Your task to perform on an android device: Is it going to rain this weekend? Image 0: 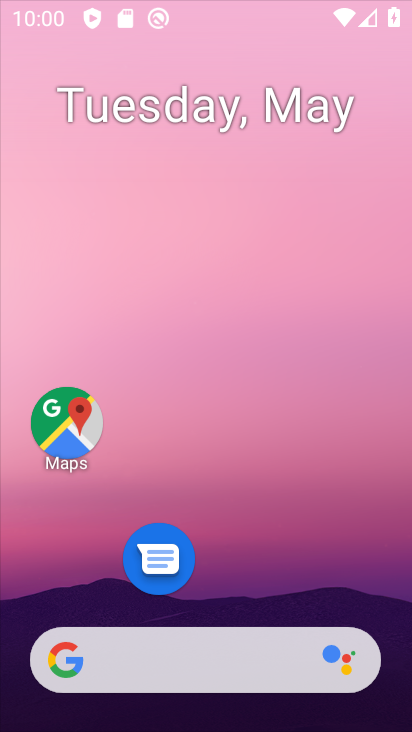
Step 0: click (237, 91)
Your task to perform on an android device: Is it going to rain this weekend? Image 1: 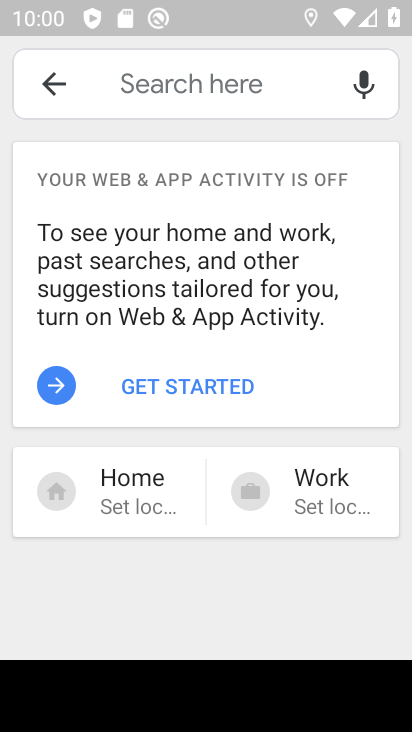
Step 1: press back button
Your task to perform on an android device: Is it going to rain this weekend? Image 2: 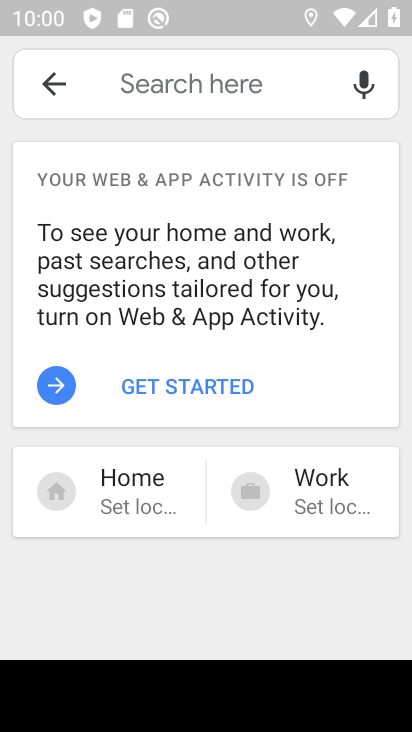
Step 2: press back button
Your task to perform on an android device: Is it going to rain this weekend? Image 3: 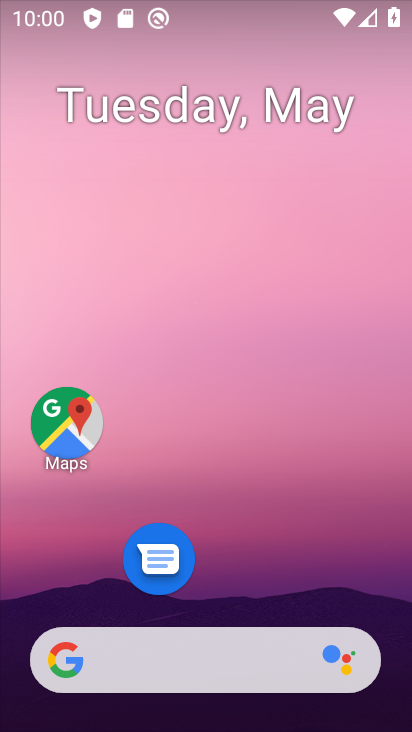
Step 3: drag from (2, 221) to (406, 436)
Your task to perform on an android device: Is it going to rain this weekend? Image 4: 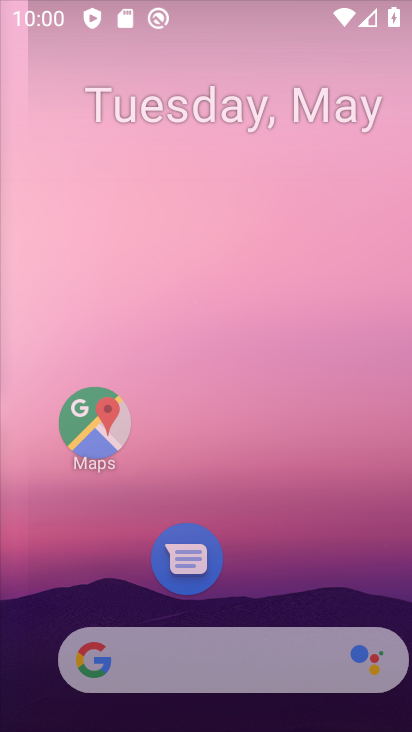
Step 4: drag from (34, 299) to (377, 378)
Your task to perform on an android device: Is it going to rain this weekend? Image 5: 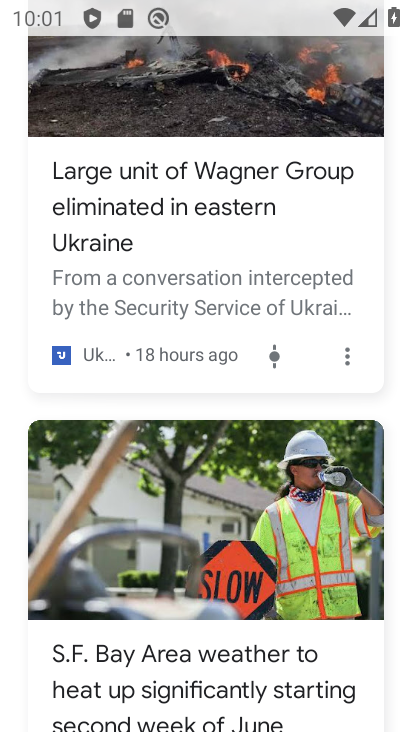
Step 5: drag from (164, 158) to (210, 454)
Your task to perform on an android device: Is it going to rain this weekend? Image 6: 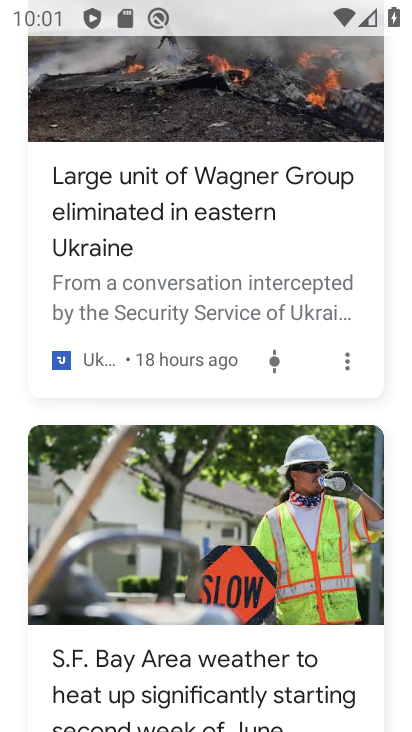
Step 6: drag from (174, 217) to (220, 506)
Your task to perform on an android device: Is it going to rain this weekend? Image 7: 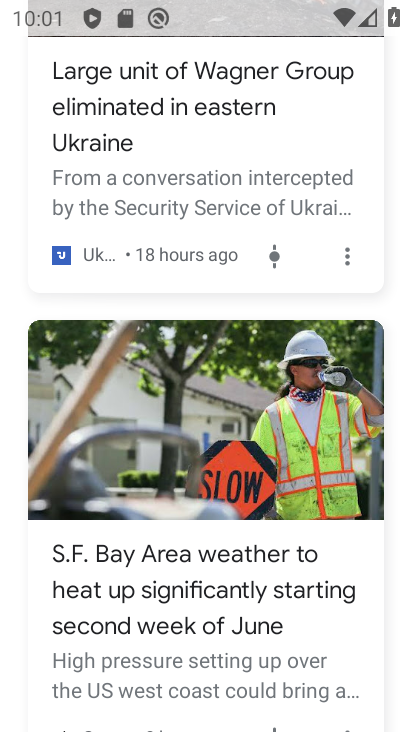
Step 7: drag from (188, 197) to (235, 559)
Your task to perform on an android device: Is it going to rain this weekend? Image 8: 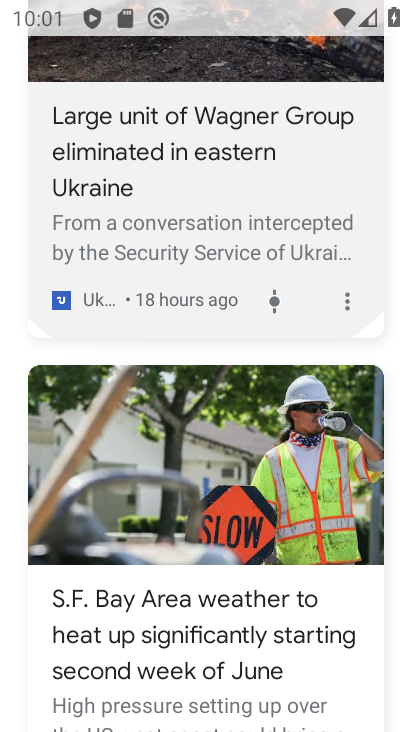
Step 8: drag from (174, 371) to (164, 562)
Your task to perform on an android device: Is it going to rain this weekend? Image 9: 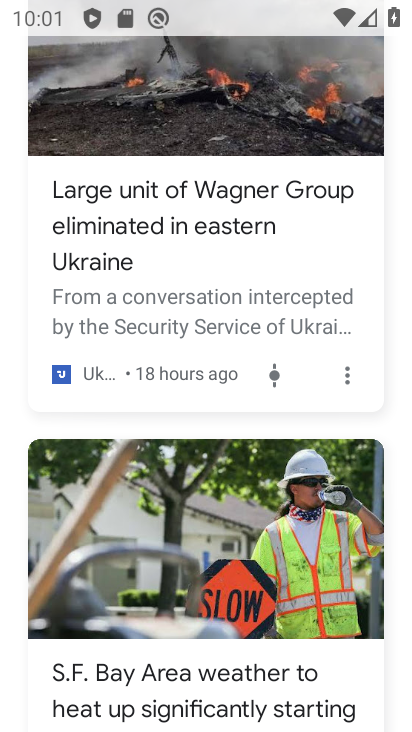
Step 9: drag from (198, 417) to (155, 552)
Your task to perform on an android device: Is it going to rain this weekend? Image 10: 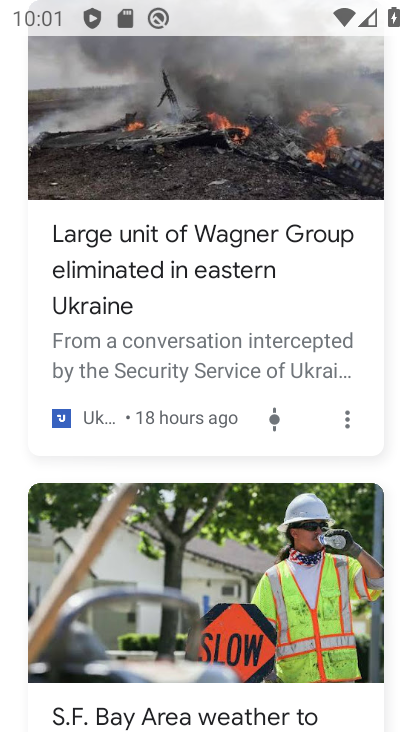
Step 10: drag from (130, 641) to (141, 717)
Your task to perform on an android device: Is it going to rain this weekend? Image 11: 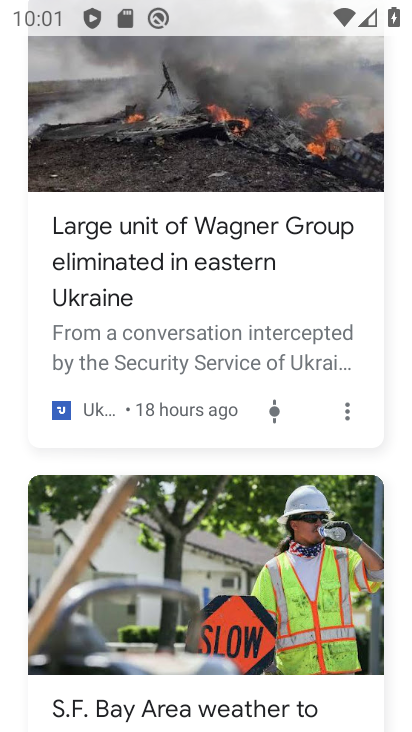
Step 11: drag from (104, 208) to (241, 618)
Your task to perform on an android device: Is it going to rain this weekend? Image 12: 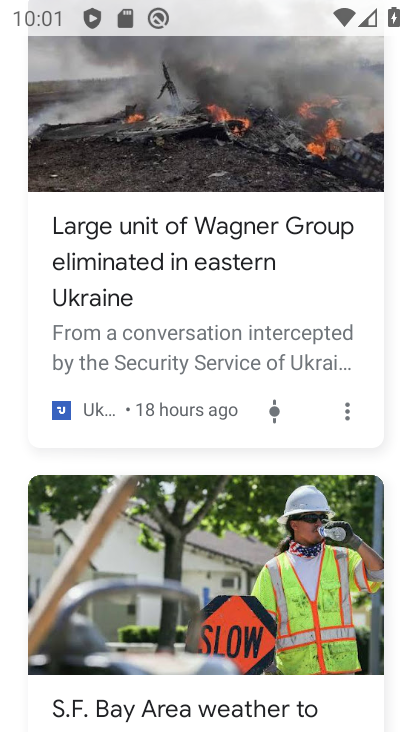
Step 12: drag from (198, 140) to (279, 613)
Your task to perform on an android device: Is it going to rain this weekend? Image 13: 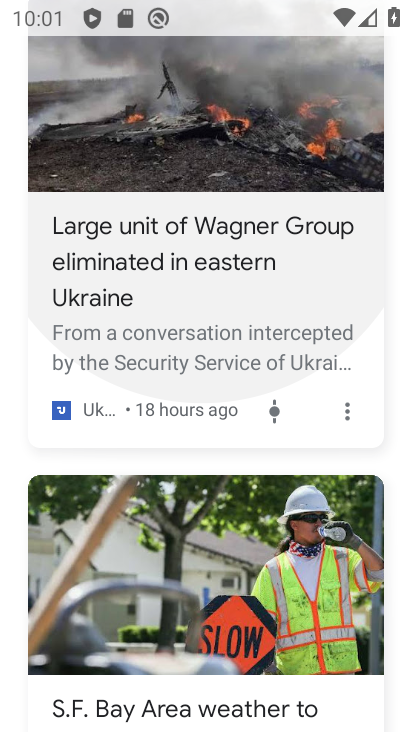
Step 13: drag from (176, 199) to (189, 593)
Your task to perform on an android device: Is it going to rain this weekend? Image 14: 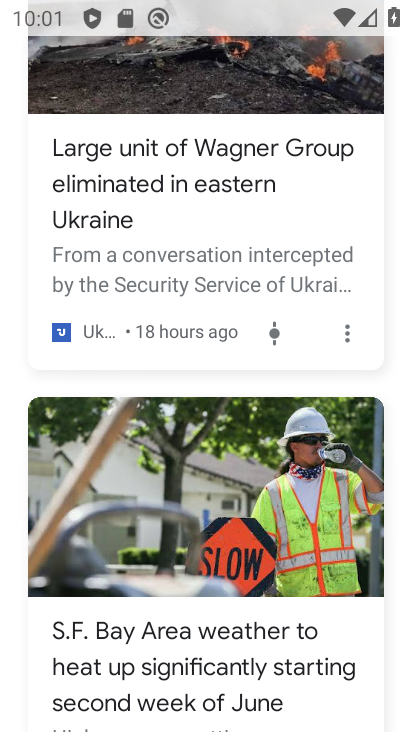
Step 14: drag from (156, 118) to (225, 618)
Your task to perform on an android device: Is it going to rain this weekend? Image 15: 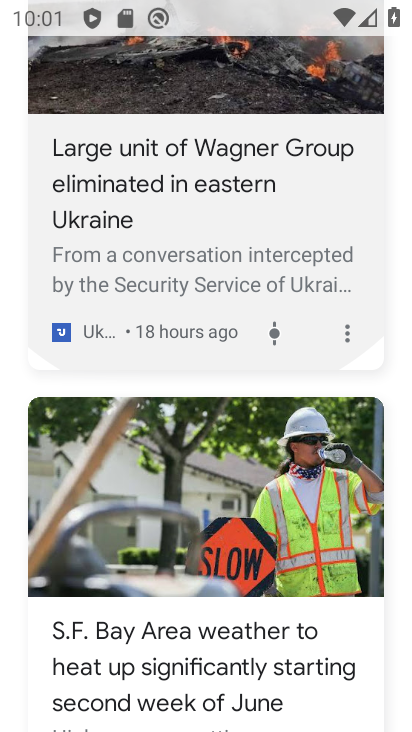
Step 15: drag from (162, 274) to (188, 552)
Your task to perform on an android device: Is it going to rain this weekend? Image 16: 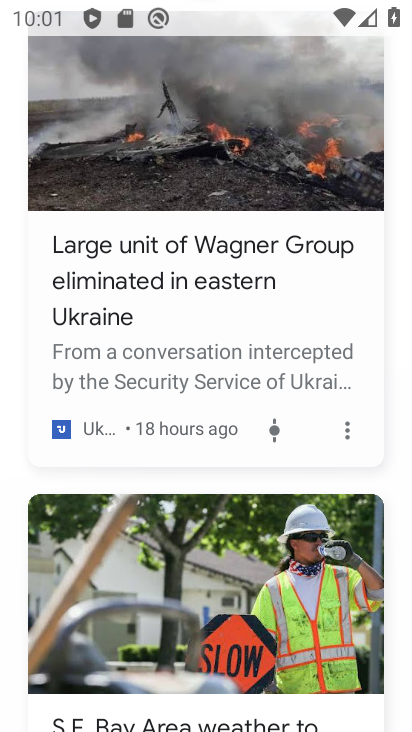
Step 16: drag from (123, 322) to (176, 508)
Your task to perform on an android device: Is it going to rain this weekend? Image 17: 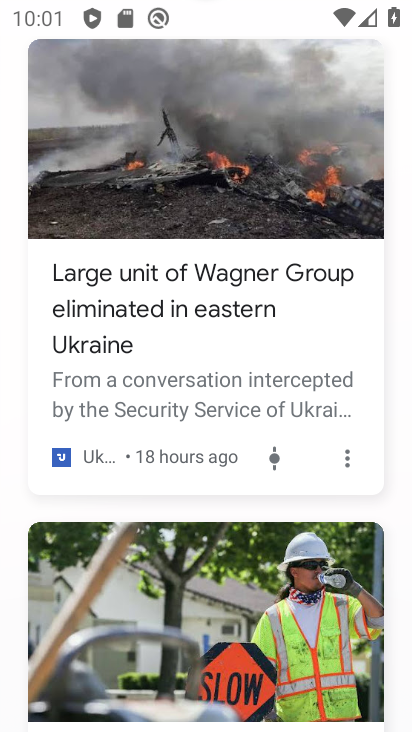
Step 17: drag from (210, 524) to (190, 571)
Your task to perform on an android device: Is it going to rain this weekend? Image 18: 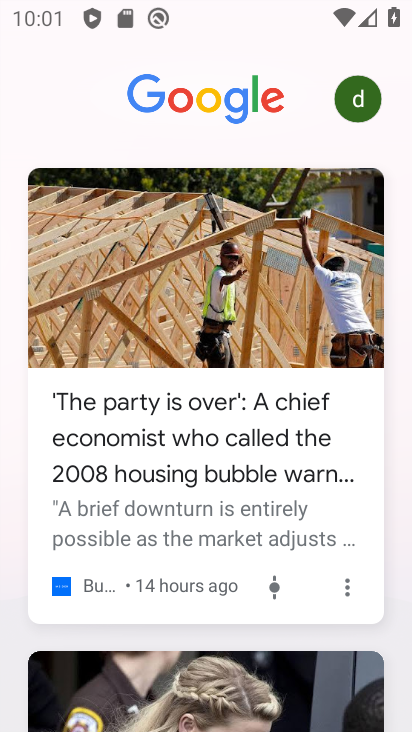
Step 18: drag from (198, 162) to (238, 381)
Your task to perform on an android device: Is it going to rain this weekend? Image 19: 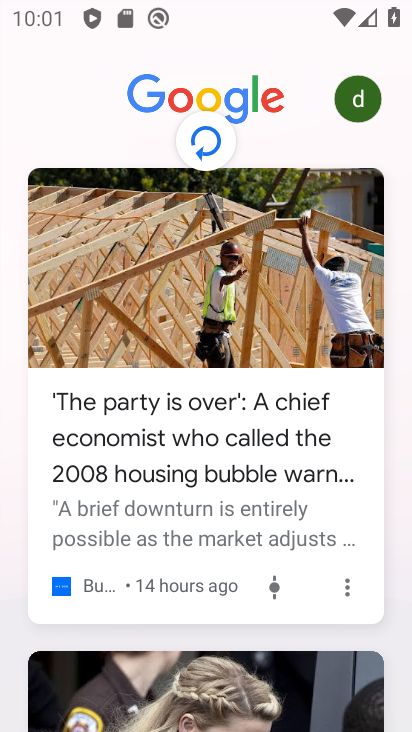
Step 19: drag from (221, 139) to (211, 411)
Your task to perform on an android device: Is it going to rain this weekend? Image 20: 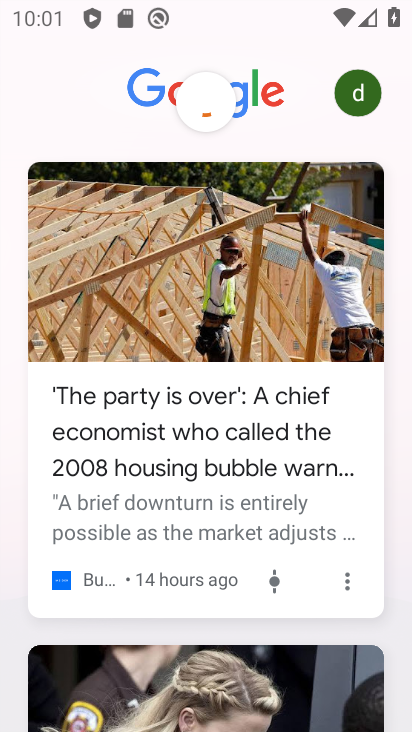
Step 20: drag from (135, 135) to (221, 397)
Your task to perform on an android device: Is it going to rain this weekend? Image 21: 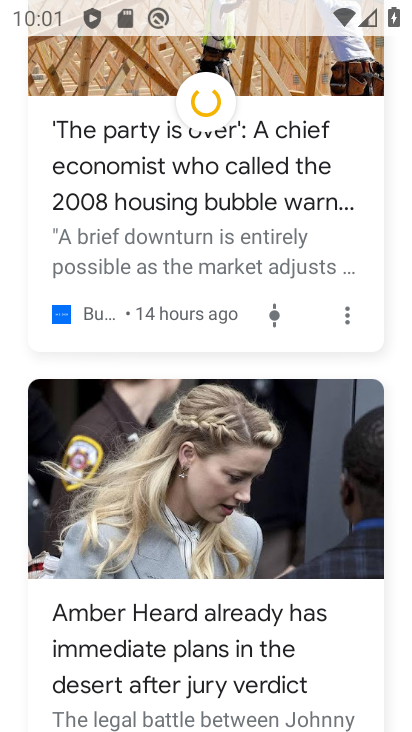
Step 21: drag from (172, 353) to (192, 431)
Your task to perform on an android device: Is it going to rain this weekend? Image 22: 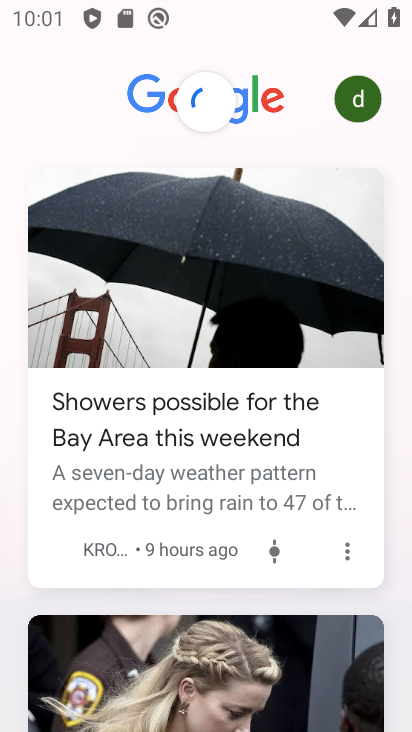
Step 22: drag from (129, 206) to (158, 445)
Your task to perform on an android device: Is it going to rain this weekend? Image 23: 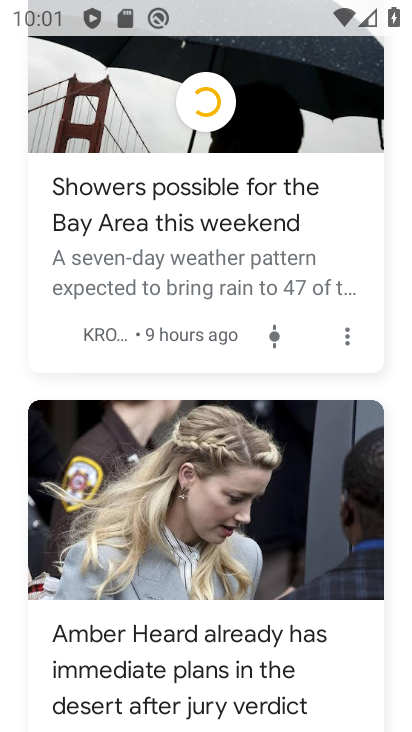
Step 23: drag from (112, 235) to (188, 407)
Your task to perform on an android device: Is it going to rain this weekend? Image 24: 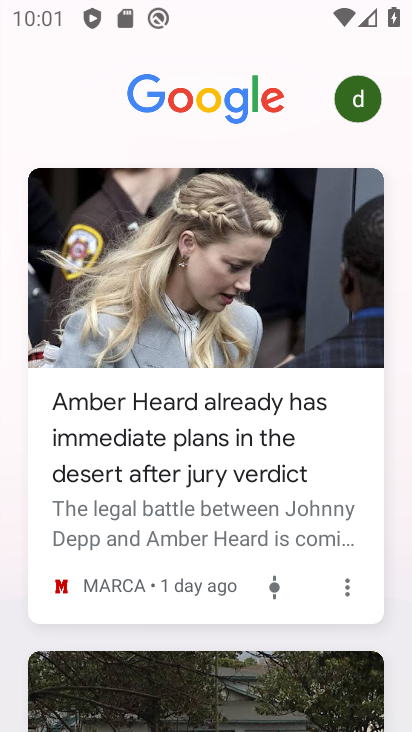
Step 24: click (210, 544)
Your task to perform on an android device: Is it going to rain this weekend? Image 25: 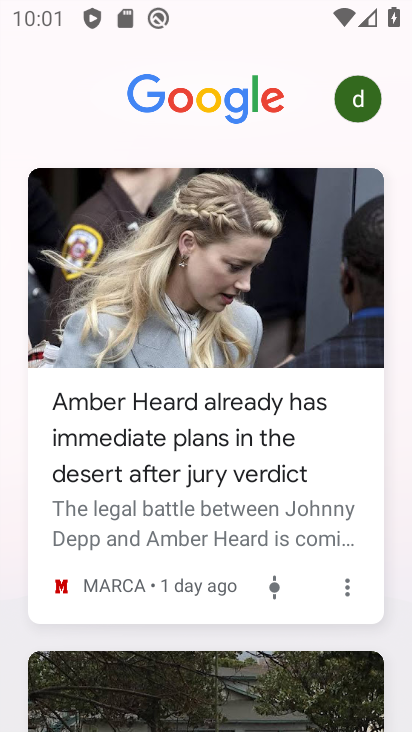
Step 25: drag from (167, 198) to (251, 474)
Your task to perform on an android device: Is it going to rain this weekend? Image 26: 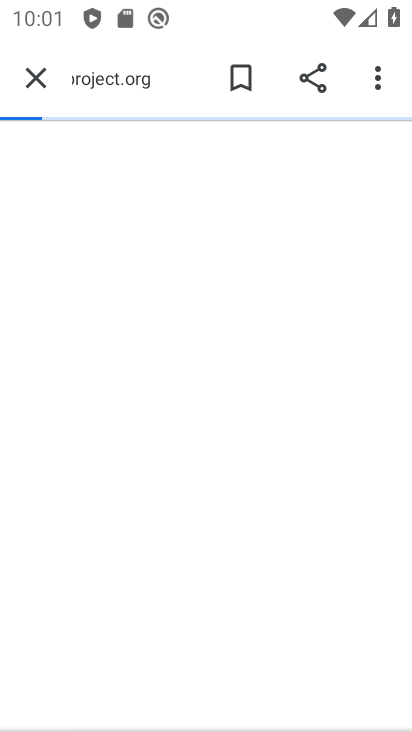
Step 26: drag from (189, 35) to (246, 398)
Your task to perform on an android device: Is it going to rain this weekend? Image 27: 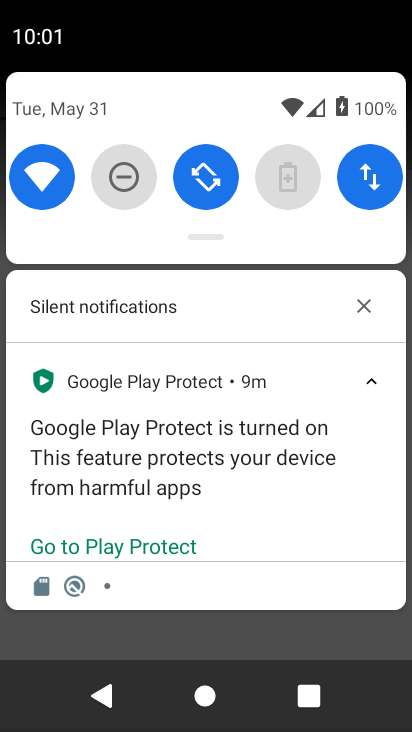
Step 27: click (25, 76)
Your task to perform on an android device: Is it going to rain this weekend? Image 28: 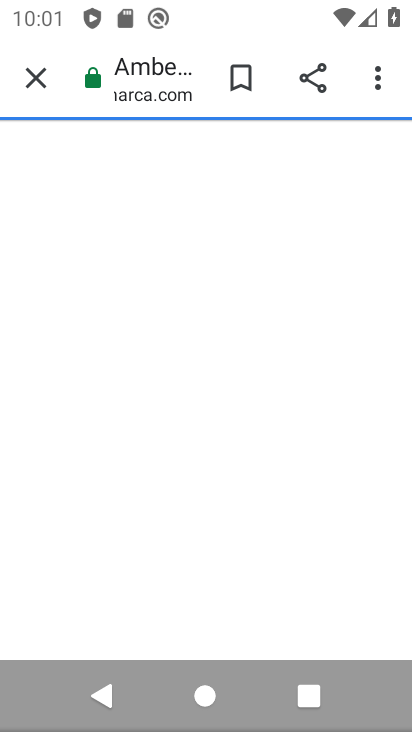
Step 28: click (259, 605)
Your task to perform on an android device: Is it going to rain this weekend? Image 29: 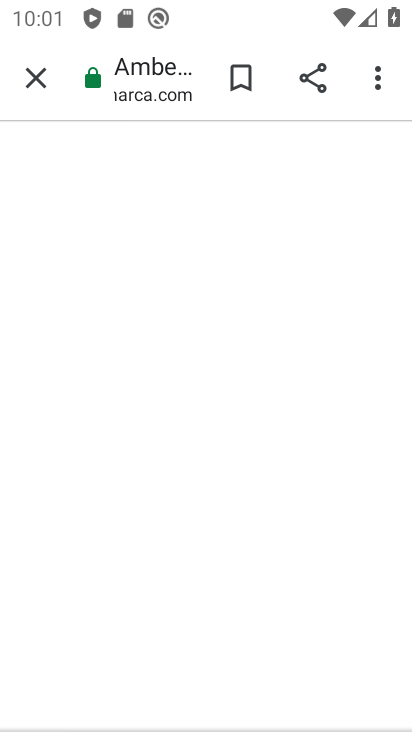
Step 29: task complete